Your task to perform on an android device: Open Chrome and go to settings Image 0: 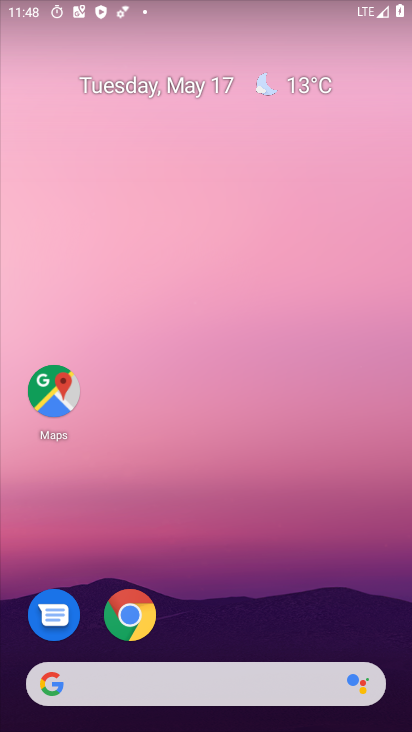
Step 0: click (122, 622)
Your task to perform on an android device: Open Chrome and go to settings Image 1: 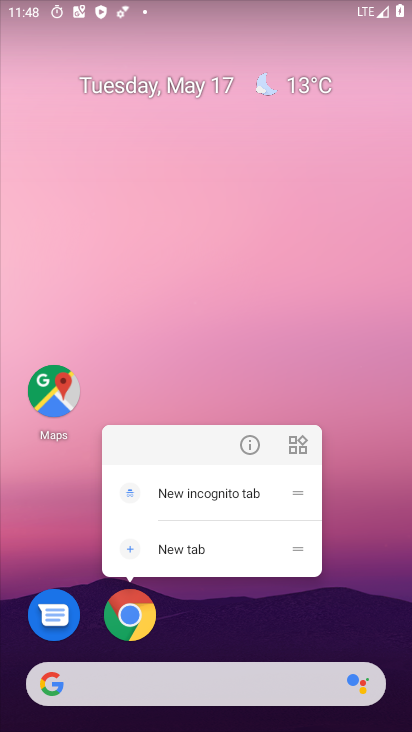
Step 1: click (144, 610)
Your task to perform on an android device: Open Chrome and go to settings Image 2: 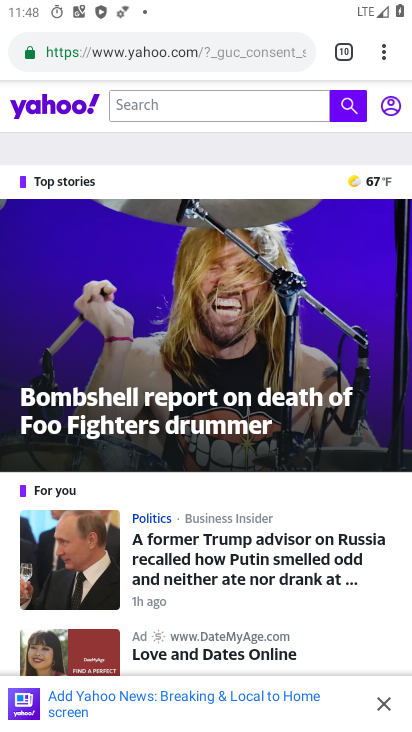
Step 2: task complete